Your task to perform on an android device: turn off improve location accuracy Image 0: 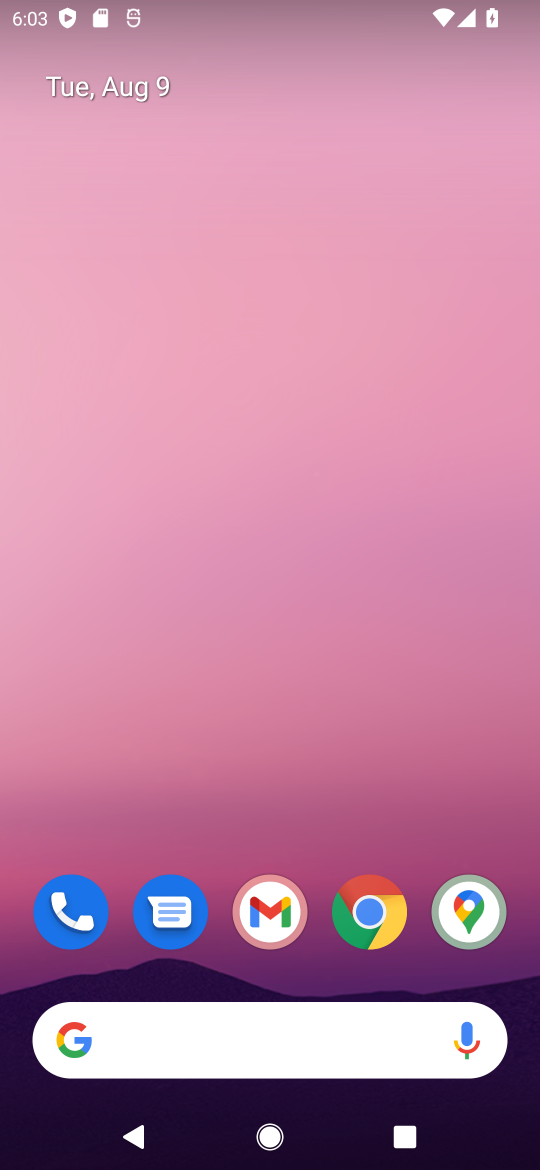
Step 0: press home button
Your task to perform on an android device: turn off improve location accuracy Image 1: 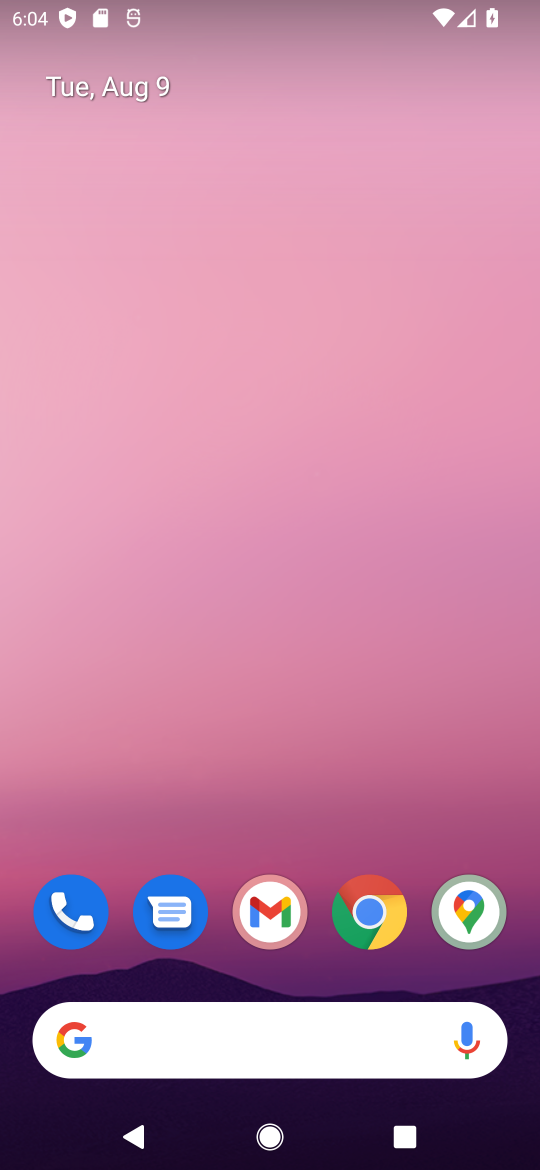
Step 1: drag from (369, 727) to (340, 46)
Your task to perform on an android device: turn off improve location accuracy Image 2: 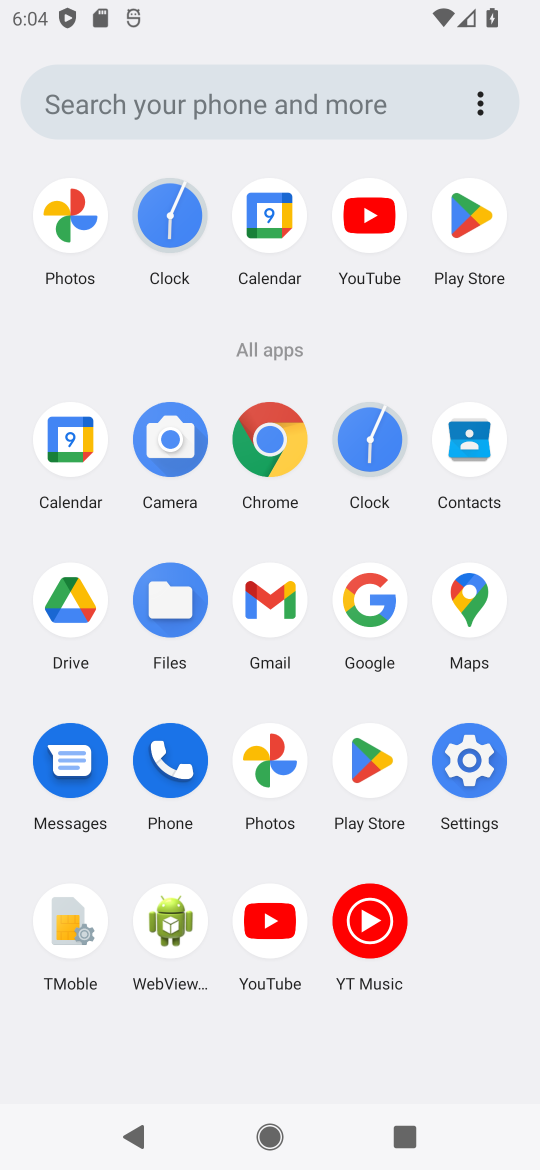
Step 2: click (463, 764)
Your task to perform on an android device: turn off improve location accuracy Image 3: 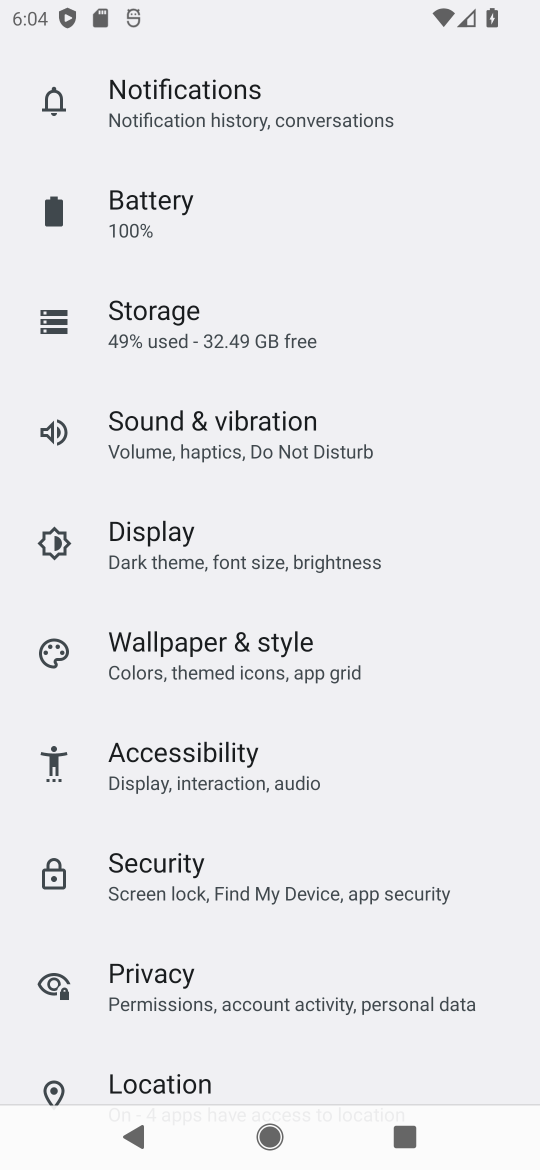
Step 3: click (224, 1081)
Your task to perform on an android device: turn off improve location accuracy Image 4: 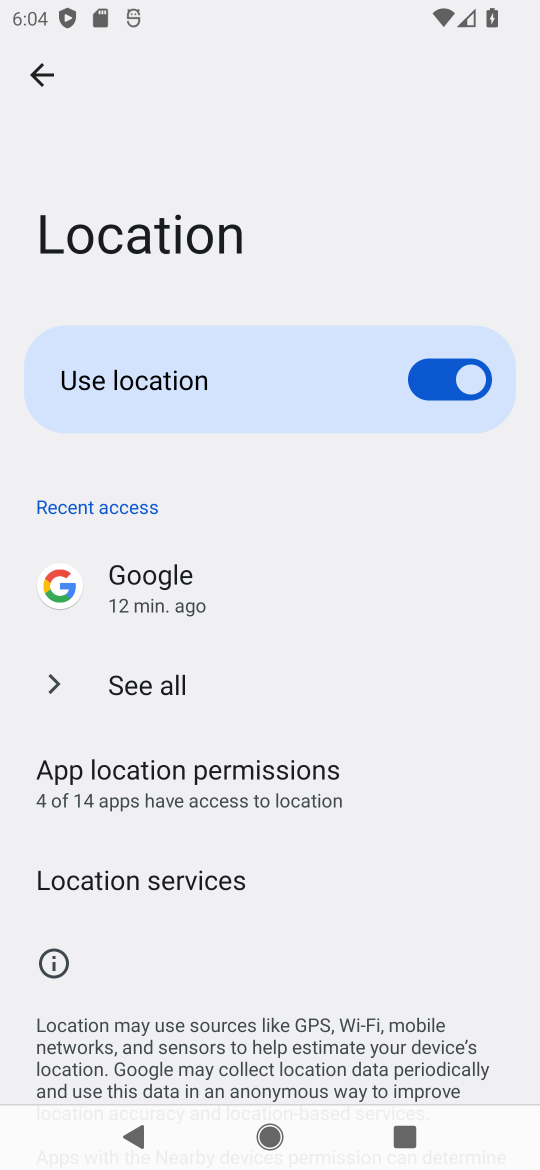
Step 4: drag from (261, 960) to (200, 278)
Your task to perform on an android device: turn off improve location accuracy Image 5: 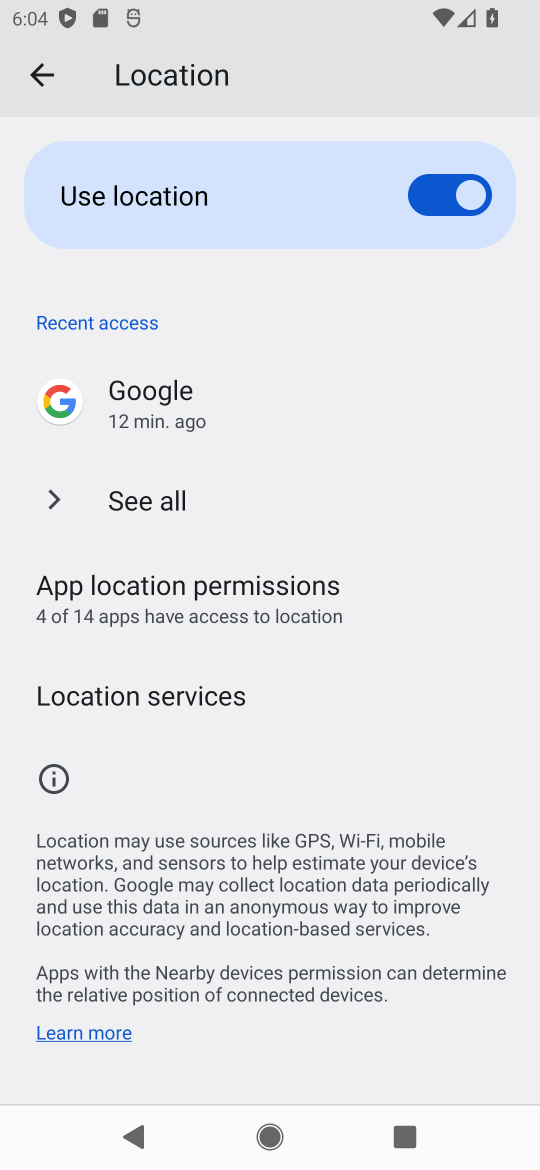
Step 5: click (164, 700)
Your task to perform on an android device: turn off improve location accuracy Image 6: 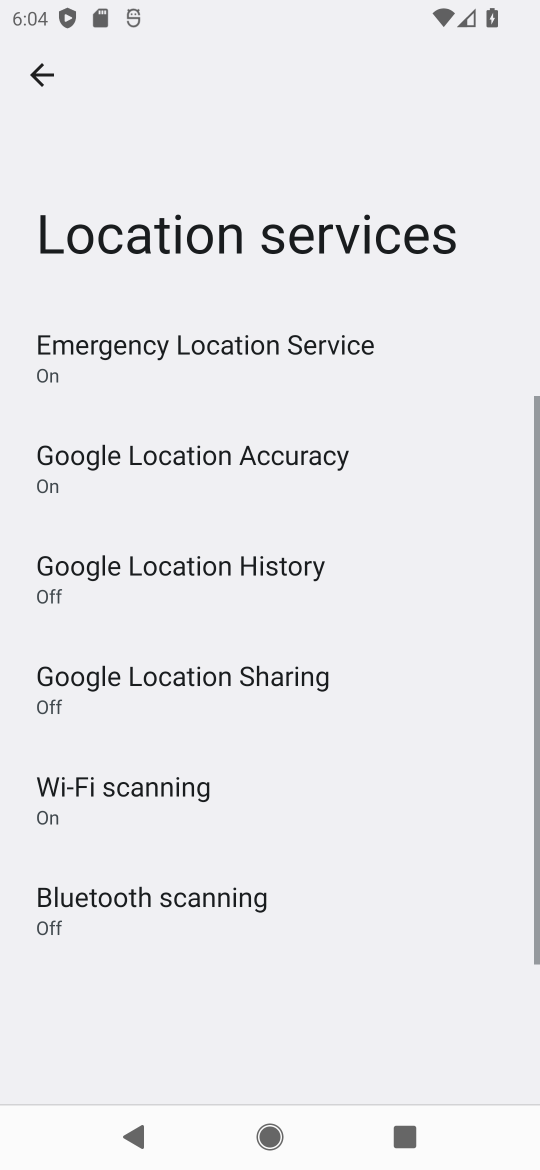
Step 6: click (226, 468)
Your task to perform on an android device: turn off improve location accuracy Image 7: 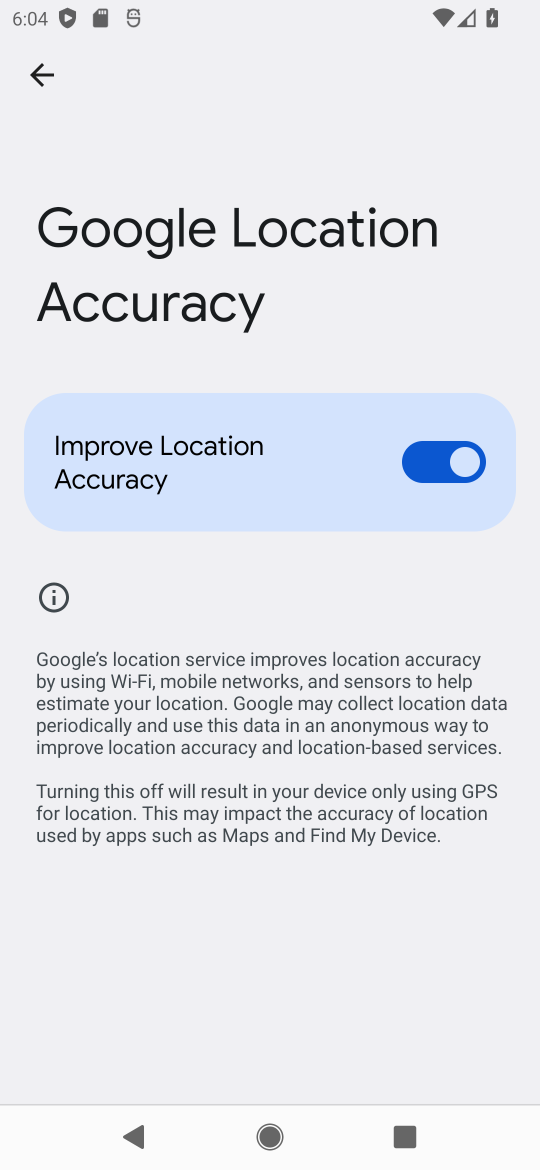
Step 7: click (437, 462)
Your task to perform on an android device: turn off improve location accuracy Image 8: 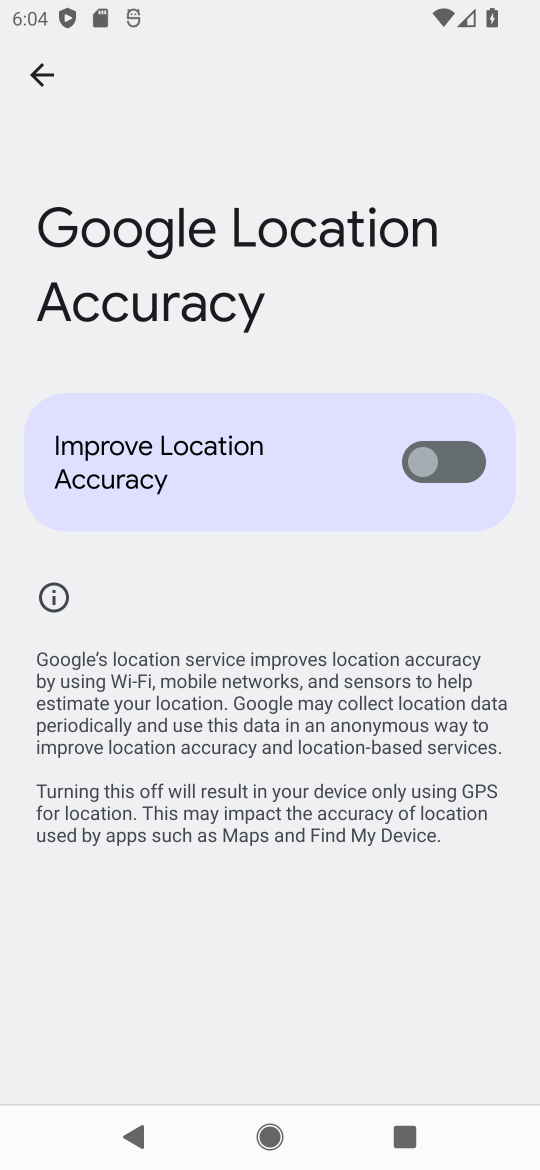
Step 8: task complete